Your task to perform on an android device: remove spam from my inbox in the gmail app Image 0: 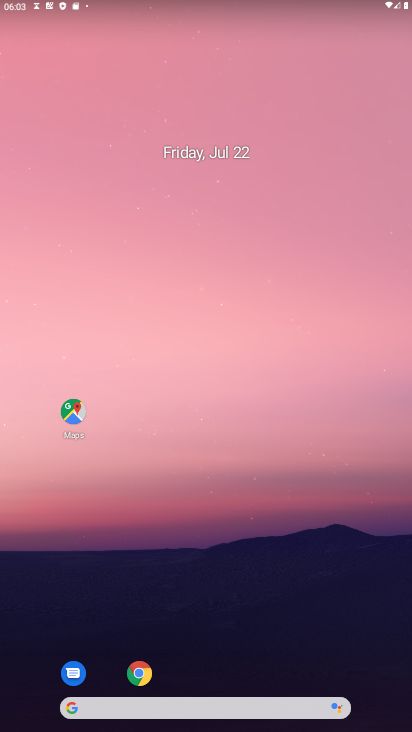
Step 0: press home button
Your task to perform on an android device: remove spam from my inbox in the gmail app Image 1: 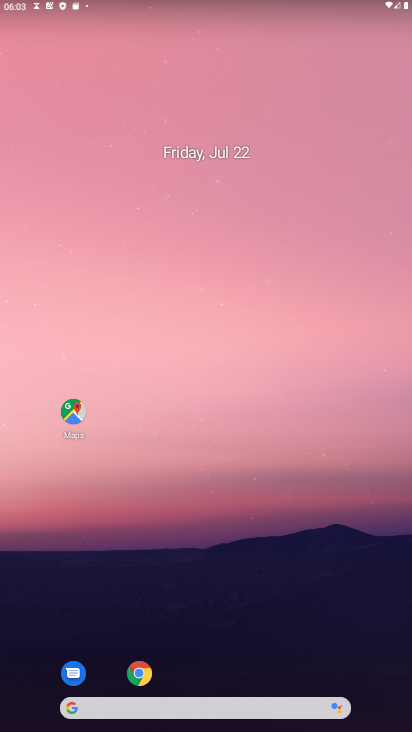
Step 1: drag from (247, 659) to (235, 215)
Your task to perform on an android device: remove spam from my inbox in the gmail app Image 2: 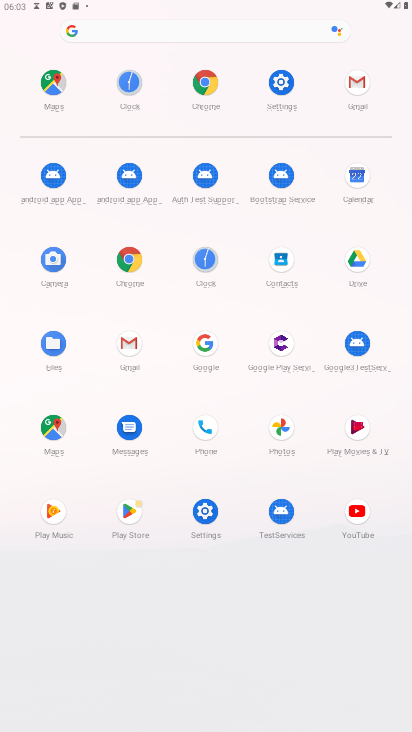
Step 2: click (356, 86)
Your task to perform on an android device: remove spam from my inbox in the gmail app Image 3: 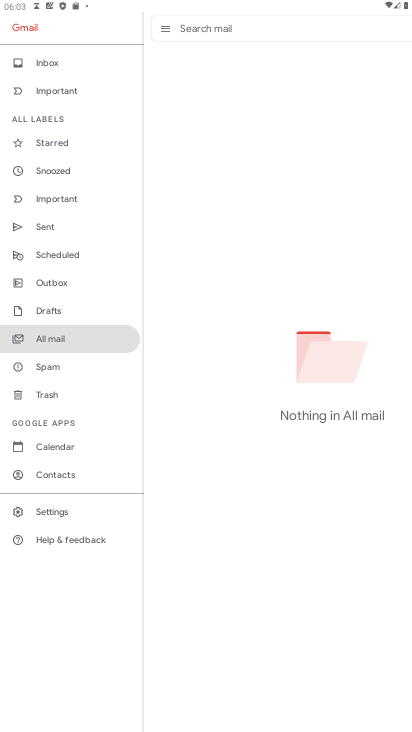
Step 3: click (46, 366)
Your task to perform on an android device: remove spam from my inbox in the gmail app Image 4: 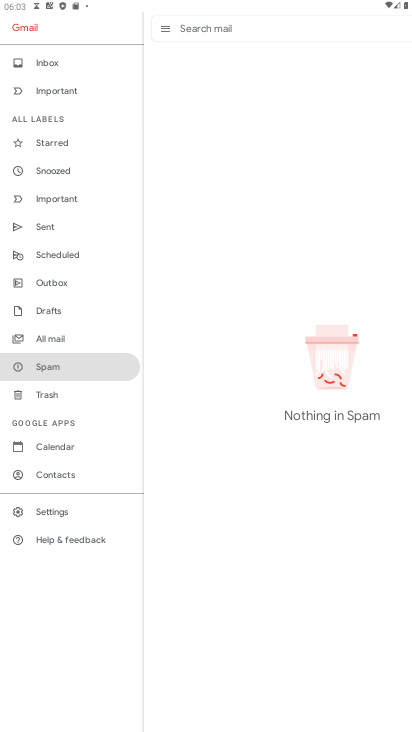
Step 4: task complete